Your task to perform on an android device: allow cookies in the chrome app Image 0: 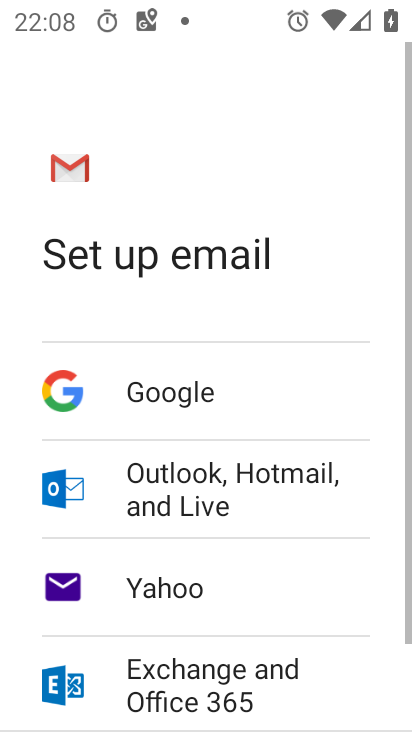
Step 0: press home button
Your task to perform on an android device: allow cookies in the chrome app Image 1: 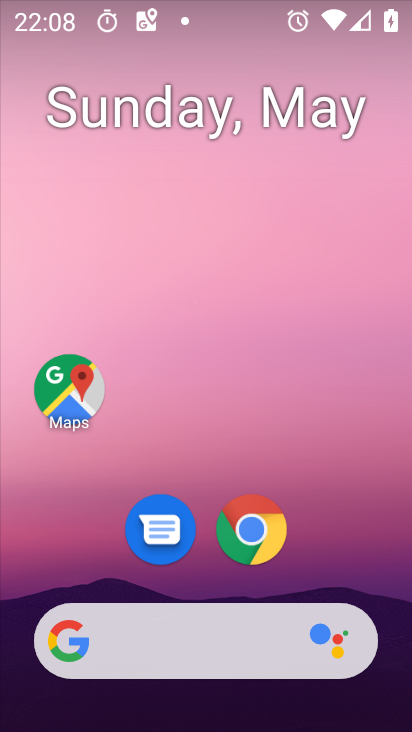
Step 1: click (254, 536)
Your task to perform on an android device: allow cookies in the chrome app Image 2: 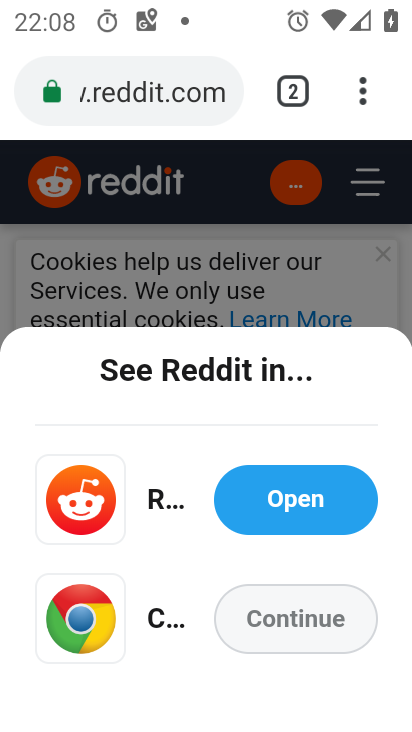
Step 2: click (362, 89)
Your task to perform on an android device: allow cookies in the chrome app Image 3: 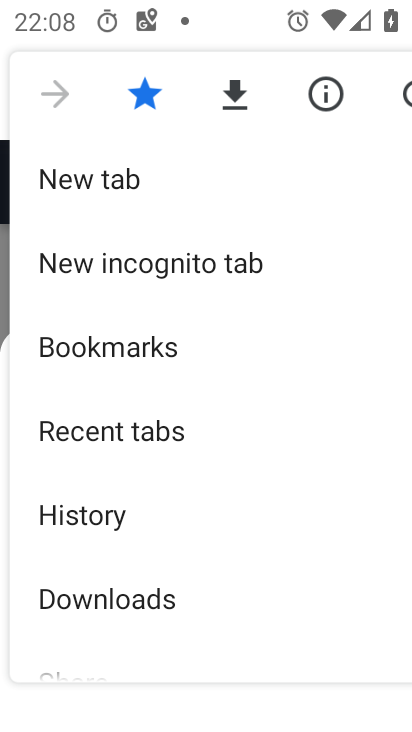
Step 3: drag from (225, 550) to (237, 186)
Your task to perform on an android device: allow cookies in the chrome app Image 4: 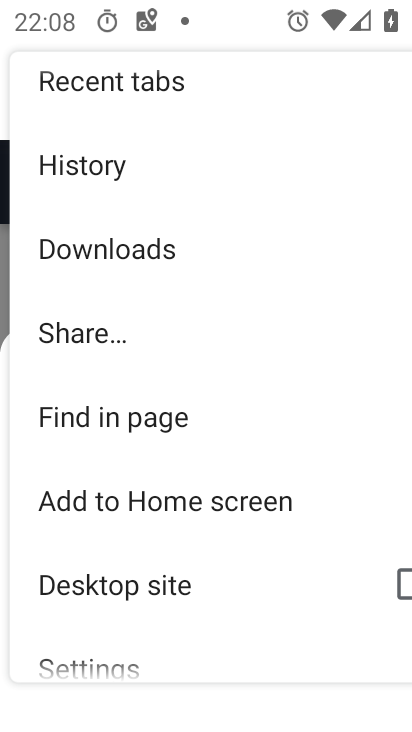
Step 4: drag from (169, 607) to (198, 315)
Your task to perform on an android device: allow cookies in the chrome app Image 5: 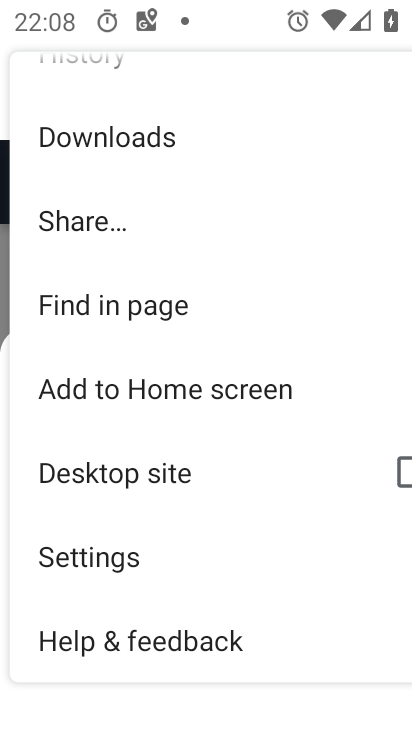
Step 5: click (92, 563)
Your task to perform on an android device: allow cookies in the chrome app Image 6: 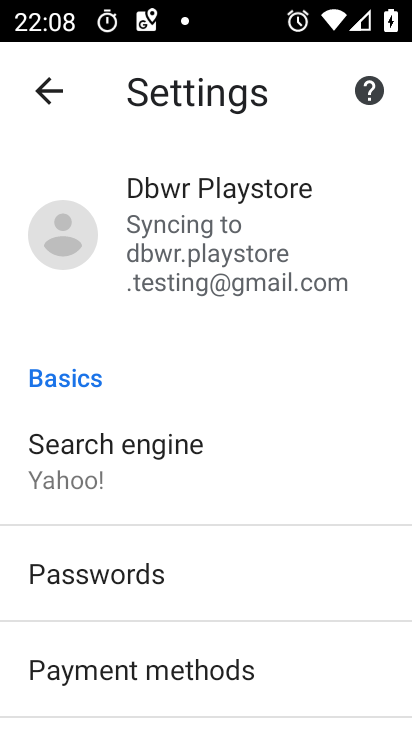
Step 6: drag from (231, 592) to (258, 134)
Your task to perform on an android device: allow cookies in the chrome app Image 7: 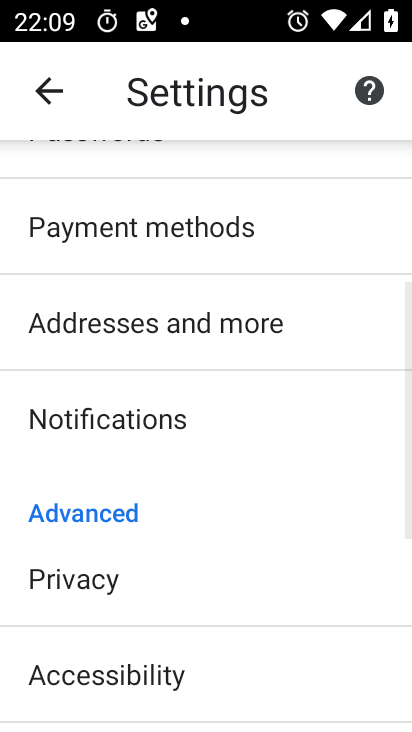
Step 7: drag from (190, 588) to (247, 131)
Your task to perform on an android device: allow cookies in the chrome app Image 8: 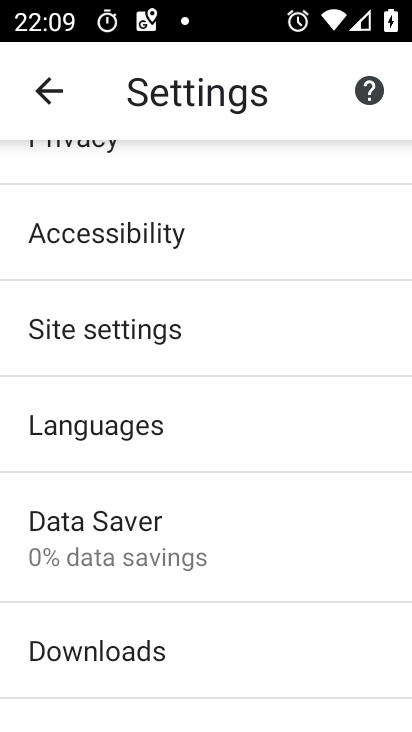
Step 8: click (119, 335)
Your task to perform on an android device: allow cookies in the chrome app Image 9: 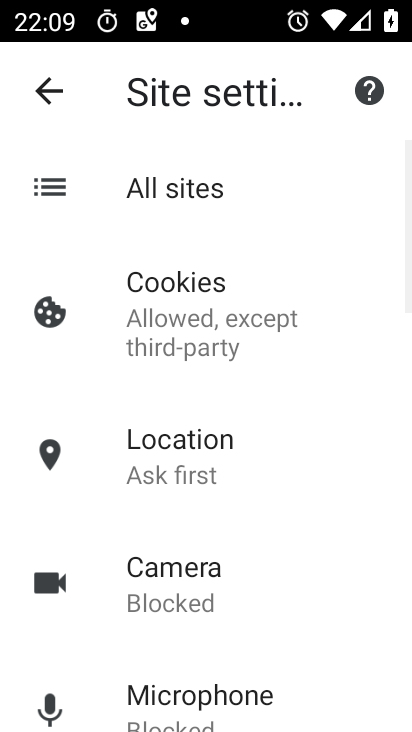
Step 9: click (193, 268)
Your task to perform on an android device: allow cookies in the chrome app Image 10: 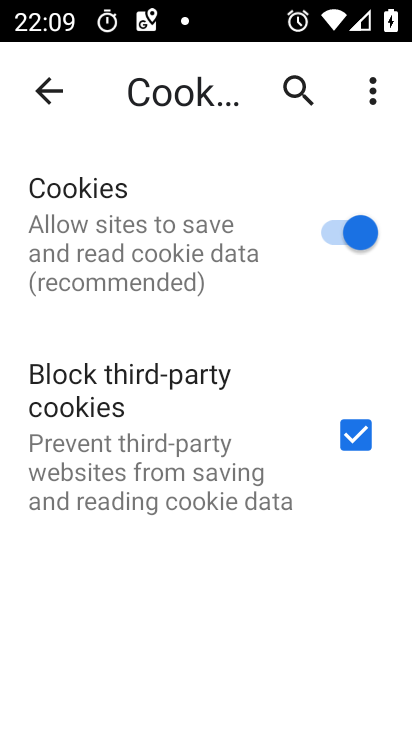
Step 10: task complete